Your task to perform on an android device: toggle airplane mode Image 0: 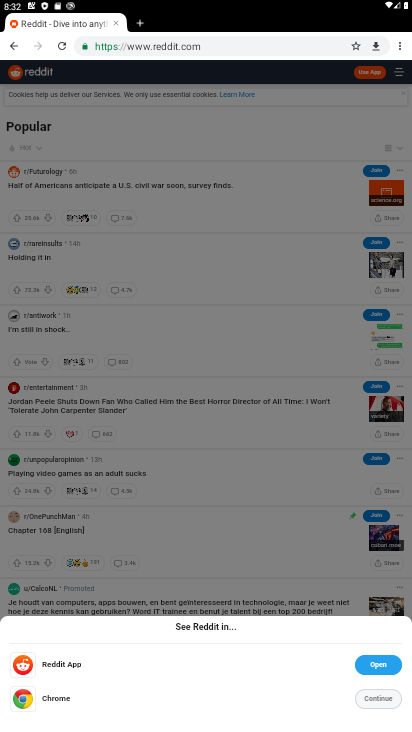
Step 0: press home button
Your task to perform on an android device: toggle airplane mode Image 1: 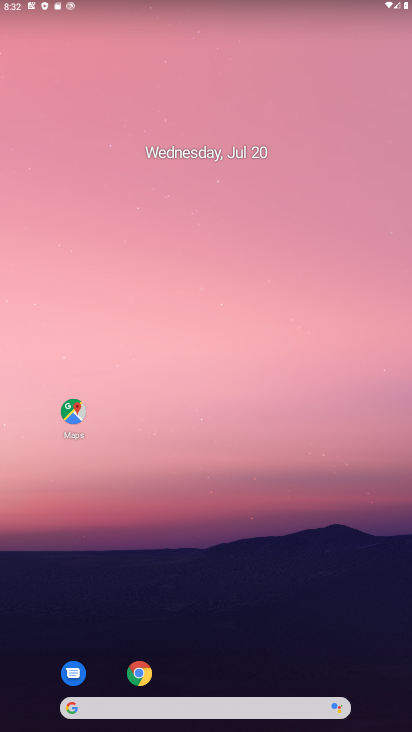
Step 1: drag from (197, 669) to (197, 291)
Your task to perform on an android device: toggle airplane mode Image 2: 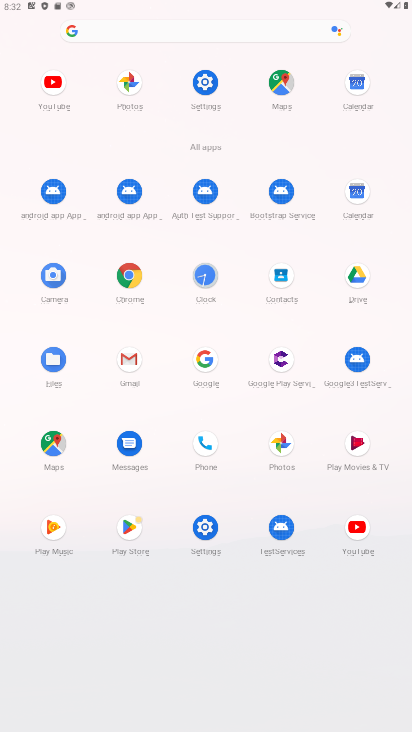
Step 2: click (205, 76)
Your task to perform on an android device: toggle airplane mode Image 3: 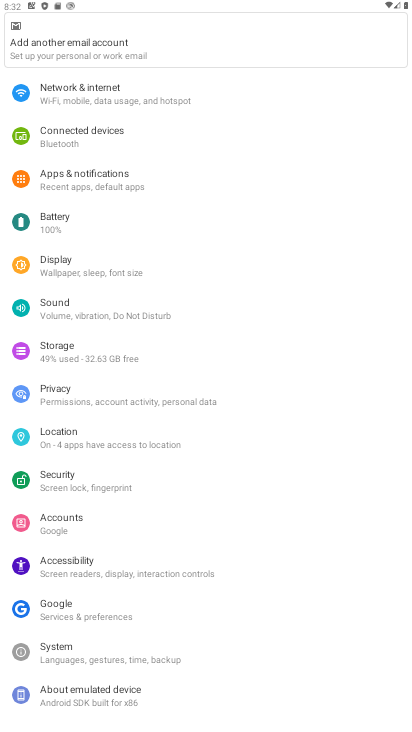
Step 3: click (110, 90)
Your task to perform on an android device: toggle airplane mode Image 4: 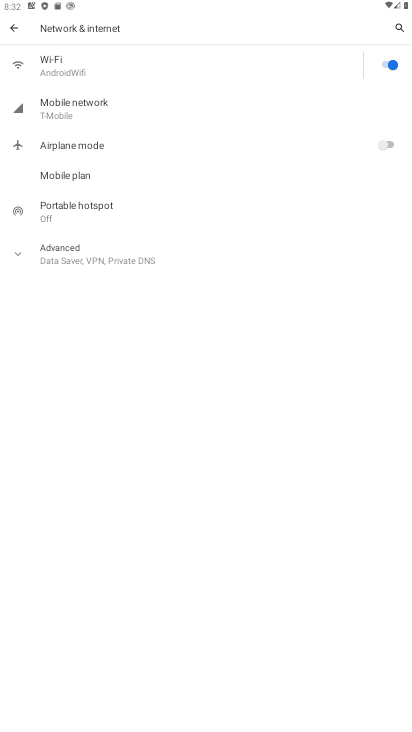
Step 4: click (389, 139)
Your task to perform on an android device: toggle airplane mode Image 5: 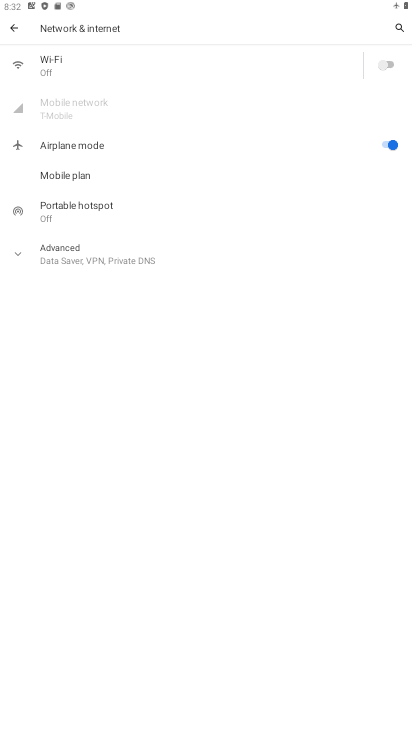
Step 5: task complete